Your task to perform on an android device: turn on translation in the chrome app Image 0: 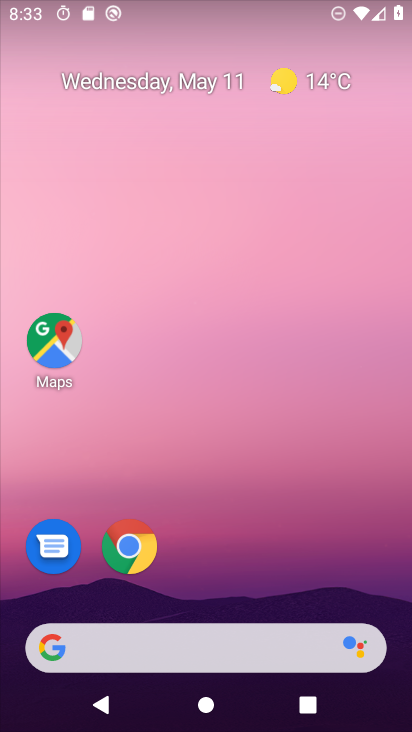
Step 0: click (139, 559)
Your task to perform on an android device: turn on translation in the chrome app Image 1: 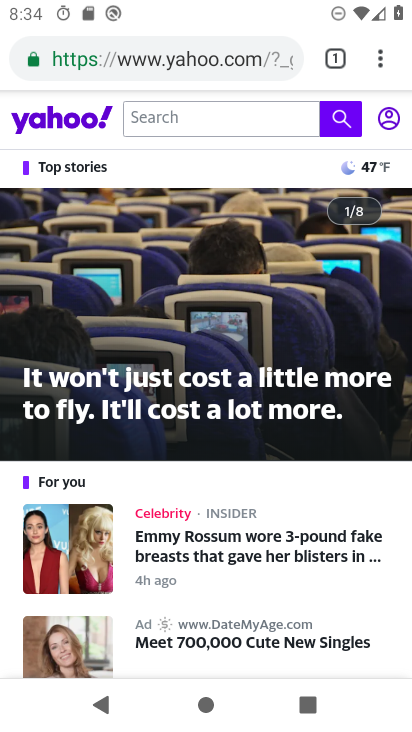
Step 1: click (382, 65)
Your task to perform on an android device: turn on translation in the chrome app Image 2: 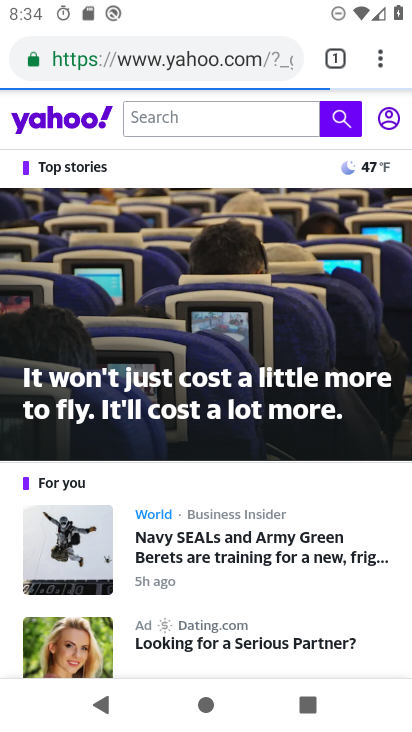
Step 2: drag from (256, 599) to (218, 317)
Your task to perform on an android device: turn on translation in the chrome app Image 3: 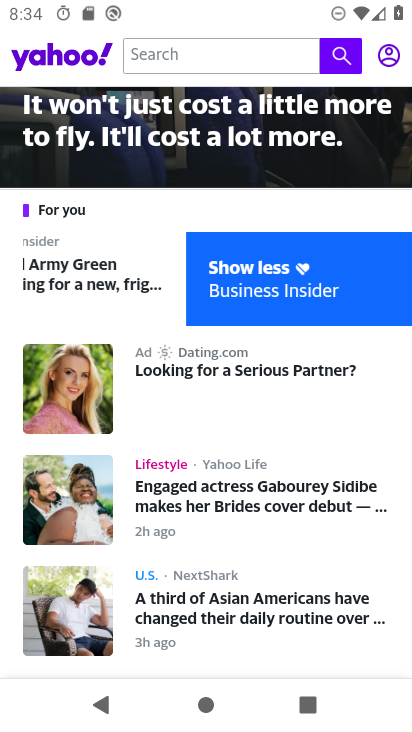
Step 3: drag from (359, 113) to (385, 696)
Your task to perform on an android device: turn on translation in the chrome app Image 4: 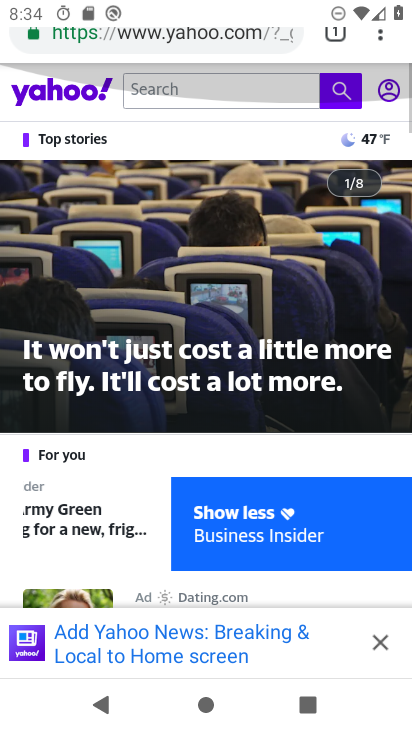
Step 4: drag from (385, 67) to (200, 571)
Your task to perform on an android device: turn on translation in the chrome app Image 5: 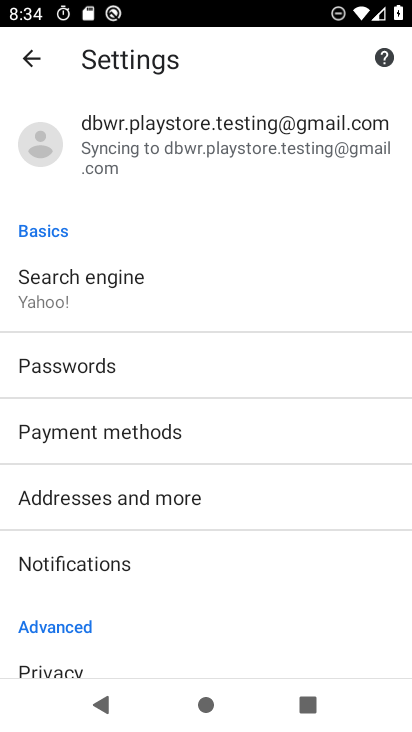
Step 5: drag from (78, 638) to (55, 322)
Your task to perform on an android device: turn on translation in the chrome app Image 6: 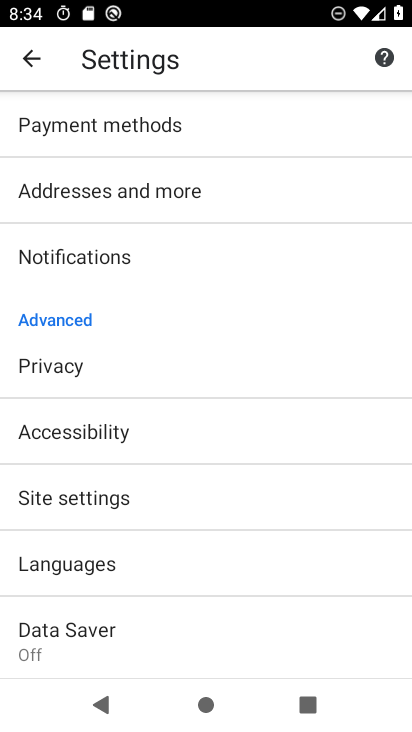
Step 6: click (94, 569)
Your task to perform on an android device: turn on translation in the chrome app Image 7: 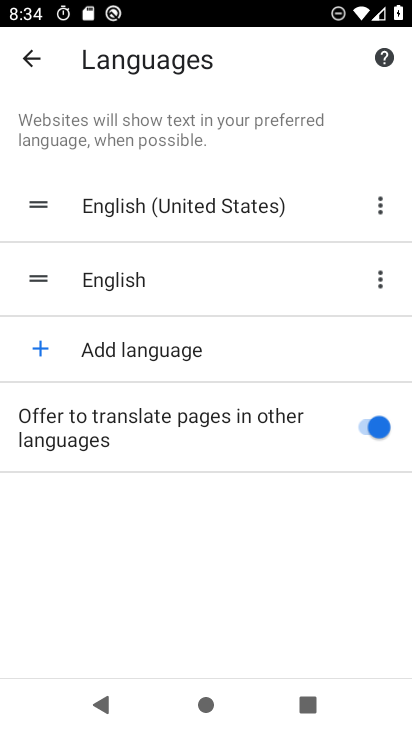
Step 7: task complete